Your task to perform on an android device: manage bookmarks in the chrome app Image 0: 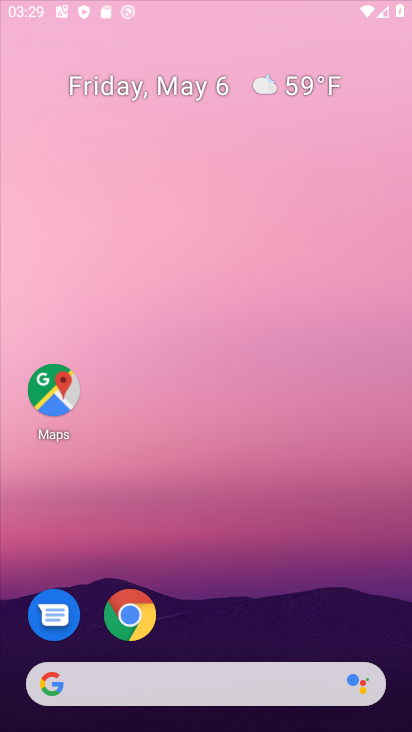
Step 0: drag from (288, 629) to (115, 123)
Your task to perform on an android device: manage bookmarks in the chrome app Image 1: 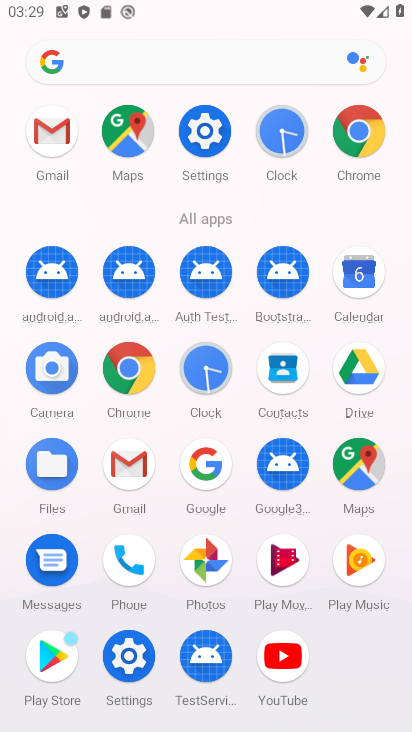
Step 1: click (351, 126)
Your task to perform on an android device: manage bookmarks in the chrome app Image 2: 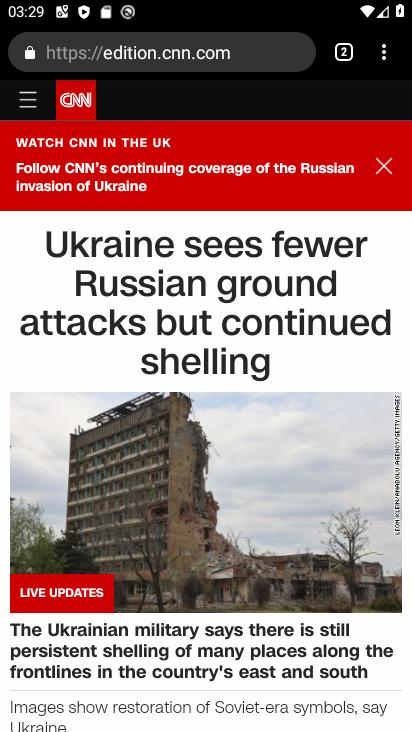
Step 2: drag from (386, 51) to (222, 212)
Your task to perform on an android device: manage bookmarks in the chrome app Image 3: 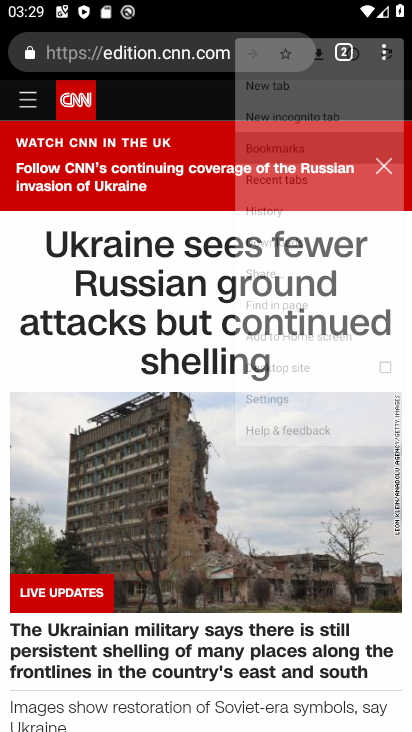
Step 3: click (218, 216)
Your task to perform on an android device: manage bookmarks in the chrome app Image 4: 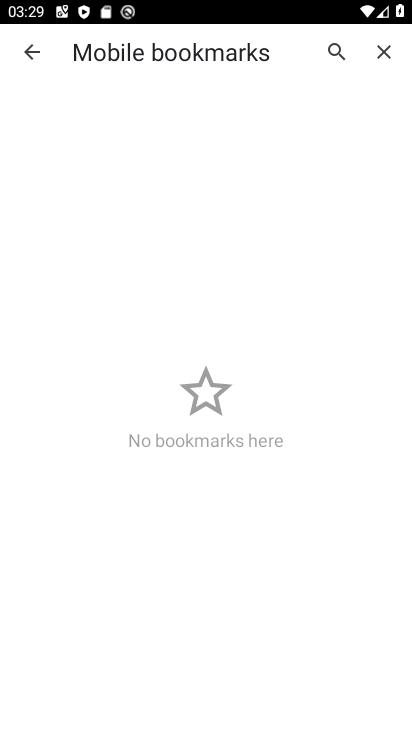
Step 4: task complete